Your task to perform on an android device: Turn off the flashlight Image 0: 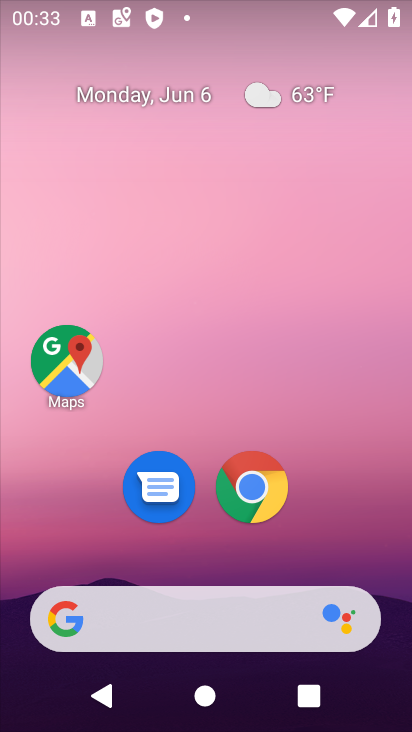
Step 0: drag from (246, 7) to (254, 381)
Your task to perform on an android device: Turn off the flashlight Image 1: 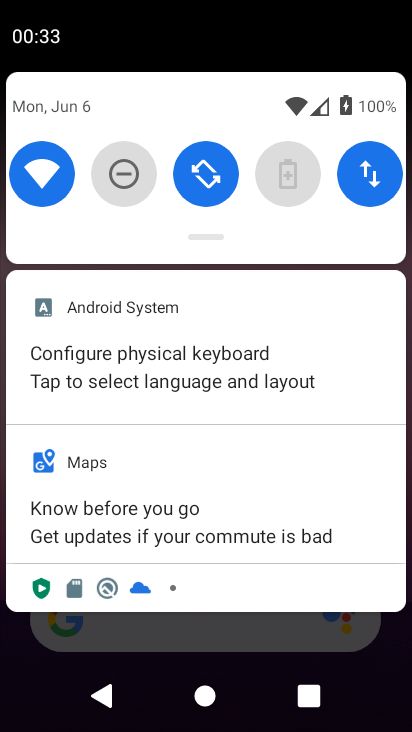
Step 1: drag from (202, 233) to (226, 496)
Your task to perform on an android device: Turn off the flashlight Image 2: 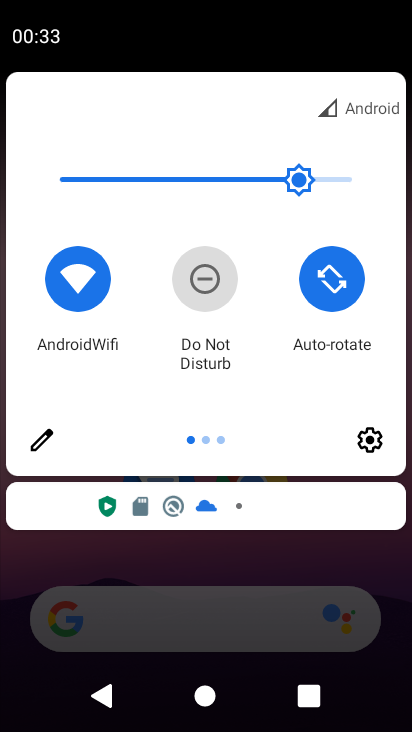
Step 2: click (40, 436)
Your task to perform on an android device: Turn off the flashlight Image 3: 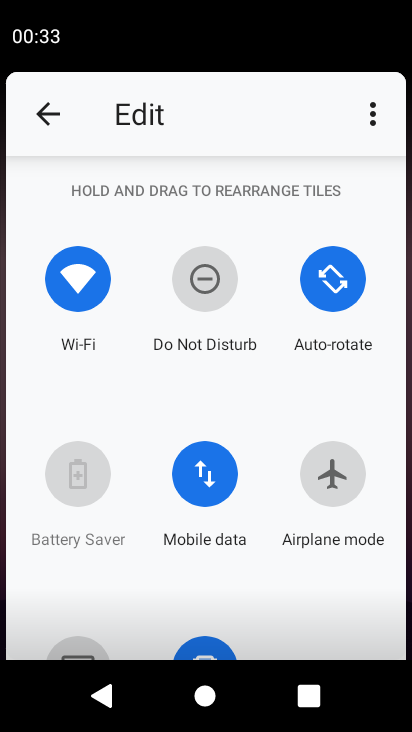
Step 3: task complete